Your task to perform on an android device: Open Chrome and go to the settings page Image 0: 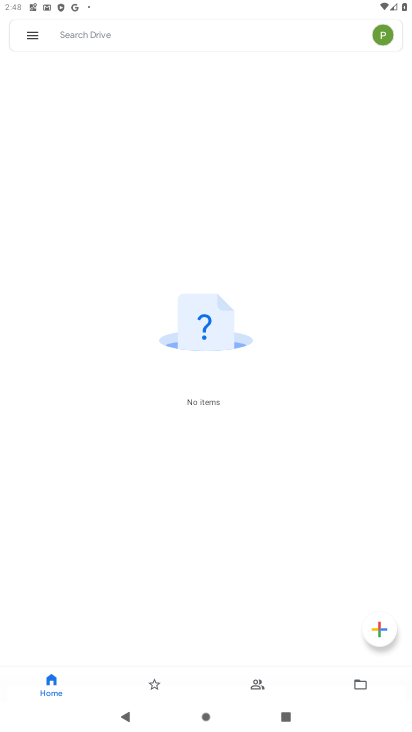
Step 0: task complete